Your task to perform on an android device: turn notification dots on Image 0: 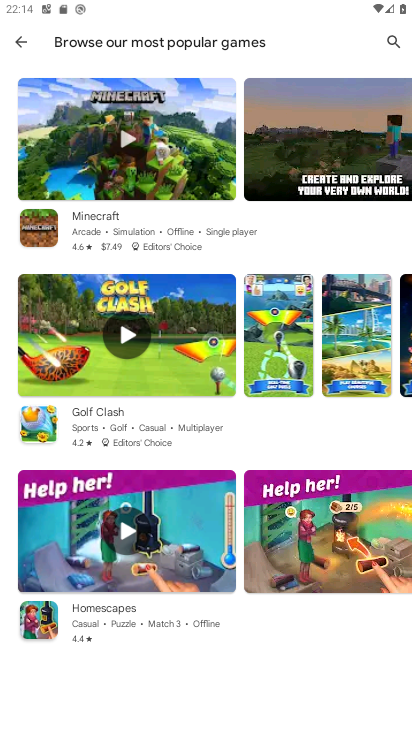
Step 0: press home button
Your task to perform on an android device: turn notification dots on Image 1: 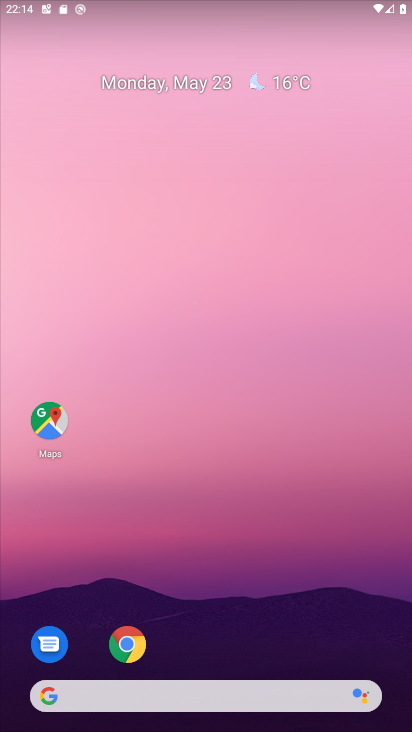
Step 1: drag from (215, 657) to (211, 42)
Your task to perform on an android device: turn notification dots on Image 2: 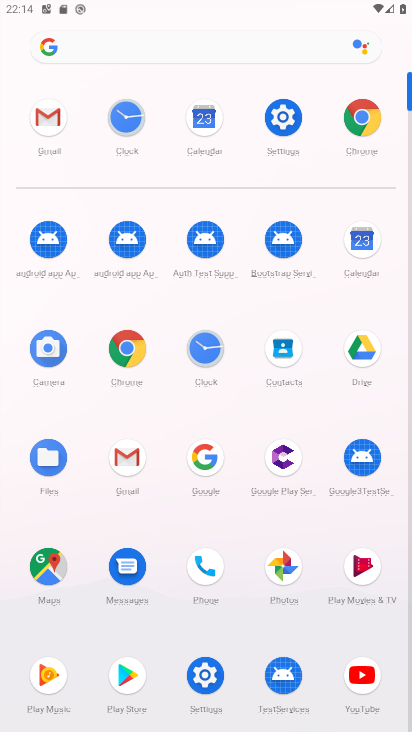
Step 2: click (203, 671)
Your task to perform on an android device: turn notification dots on Image 3: 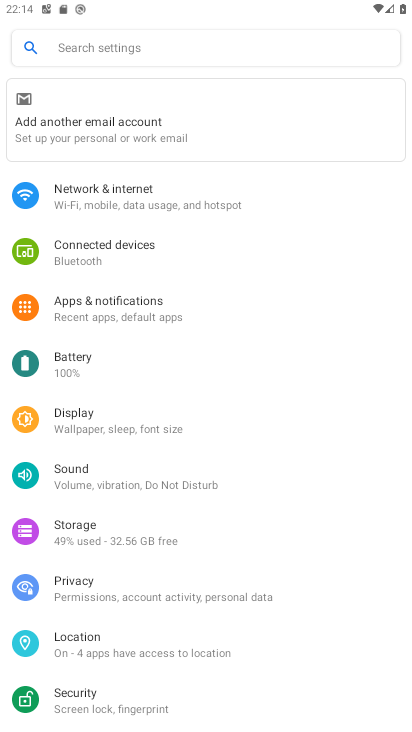
Step 3: click (111, 307)
Your task to perform on an android device: turn notification dots on Image 4: 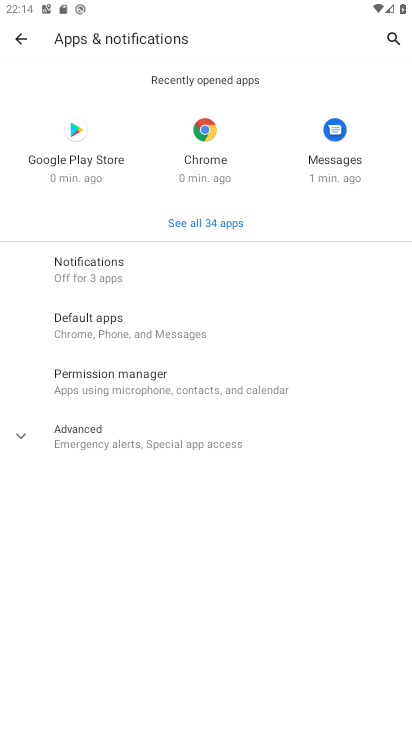
Step 4: click (134, 264)
Your task to perform on an android device: turn notification dots on Image 5: 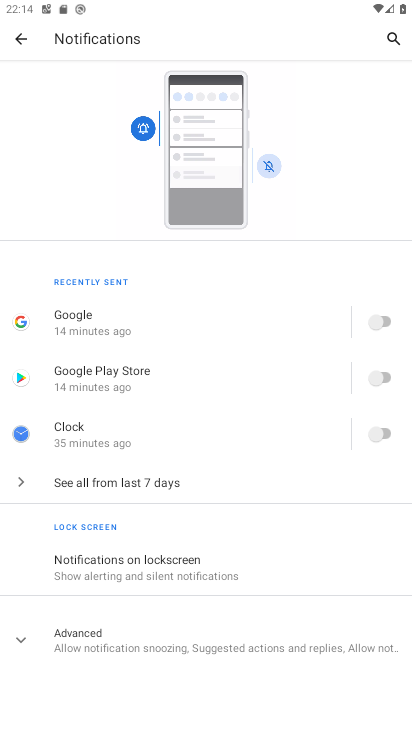
Step 5: click (38, 638)
Your task to perform on an android device: turn notification dots on Image 6: 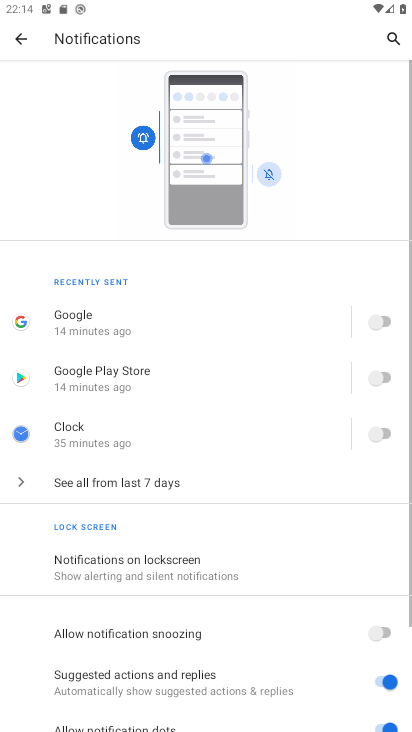
Step 6: task complete